Your task to perform on an android device: check storage Image 0: 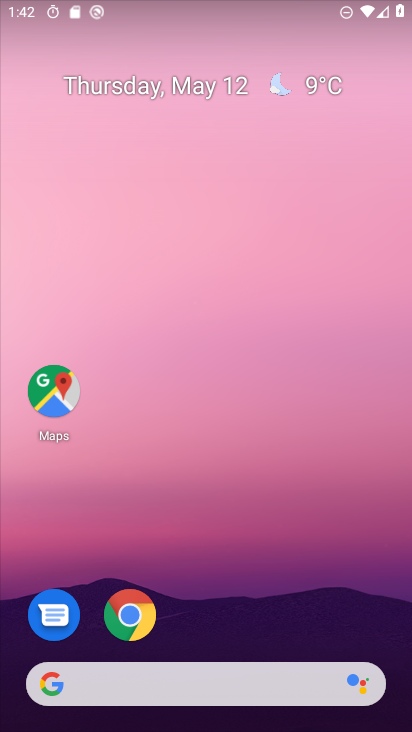
Step 0: drag from (222, 553) to (248, 65)
Your task to perform on an android device: check storage Image 1: 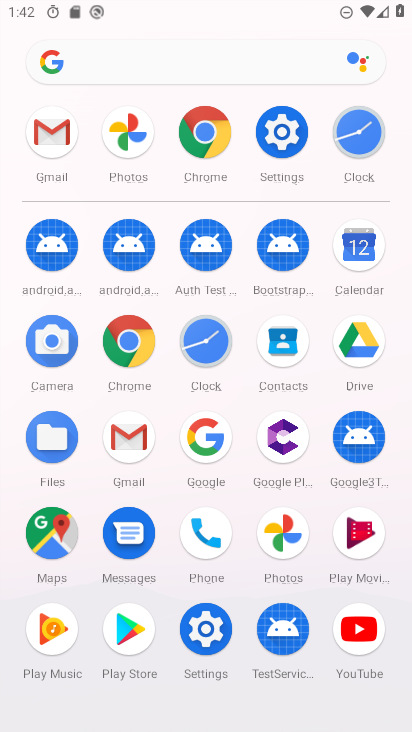
Step 1: click (278, 139)
Your task to perform on an android device: check storage Image 2: 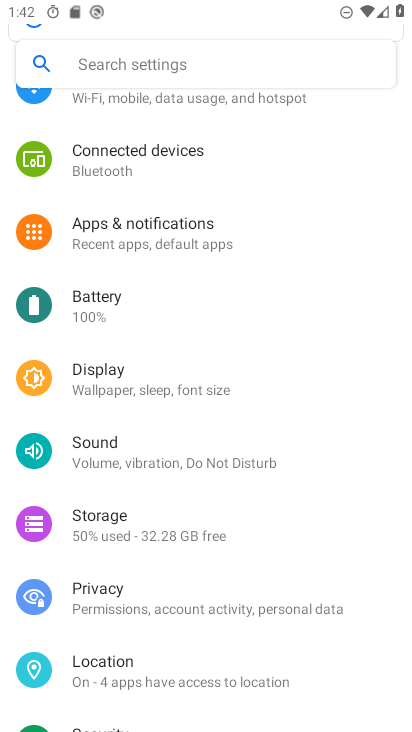
Step 2: click (167, 533)
Your task to perform on an android device: check storage Image 3: 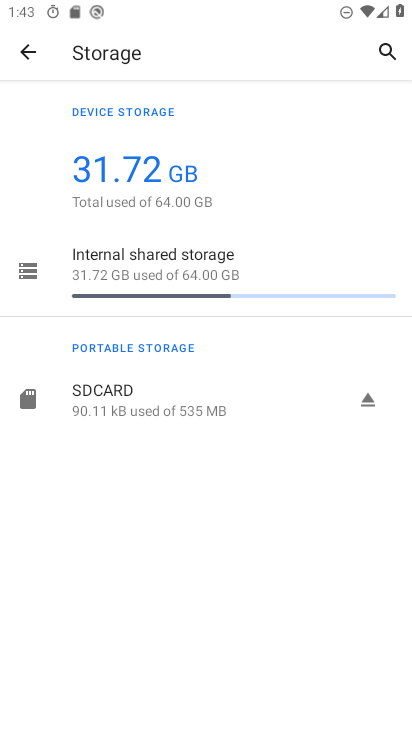
Step 3: task complete